Your task to perform on an android device: Show me recent news Image 0: 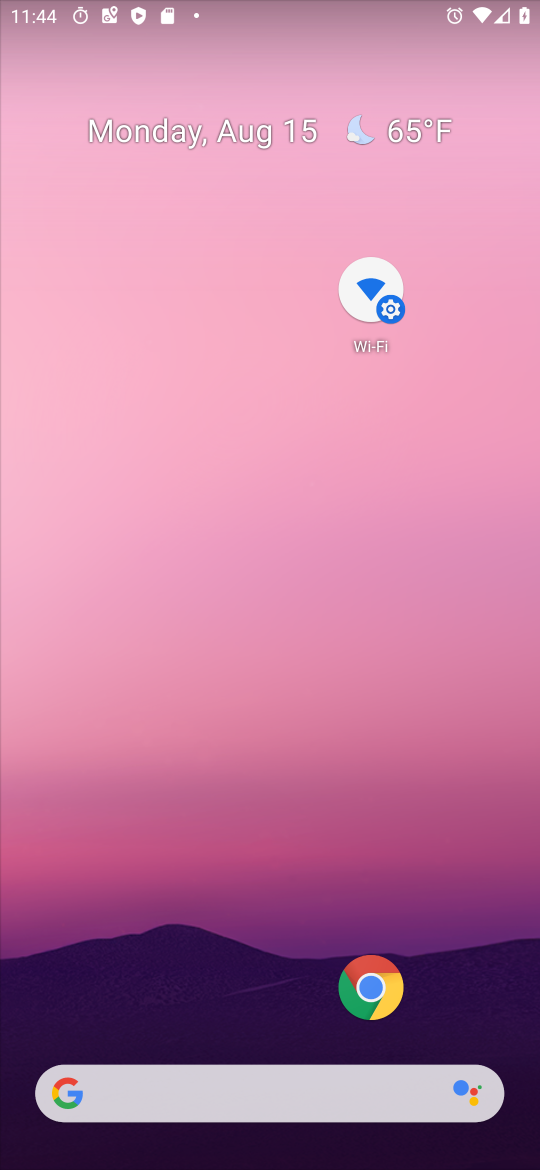
Step 0: click (253, 1082)
Your task to perform on an android device: Show me recent news Image 1: 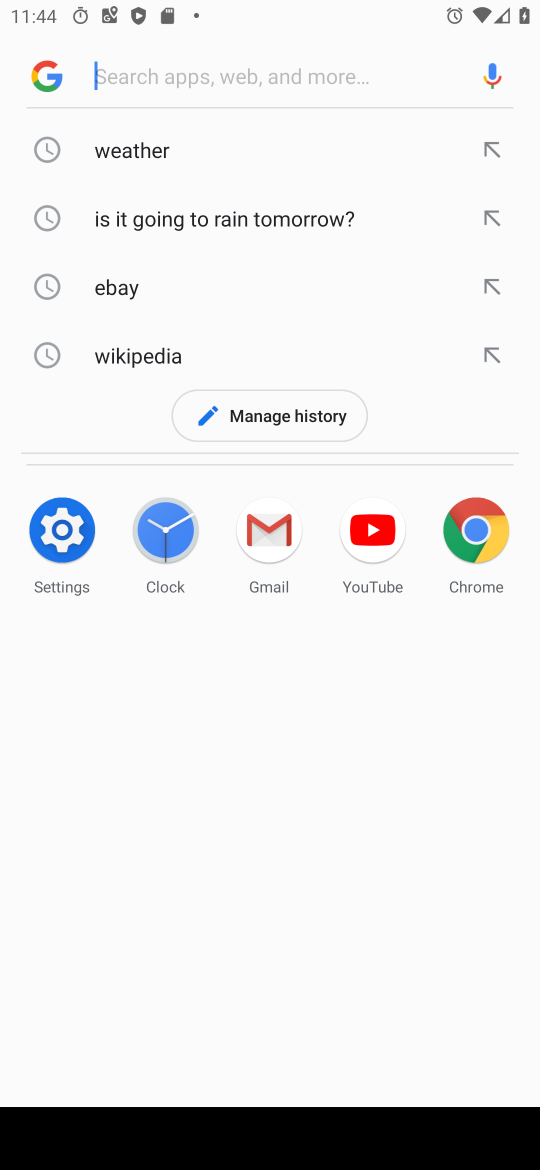
Step 1: type "recent news"
Your task to perform on an android device: Show me recent news Image 2: 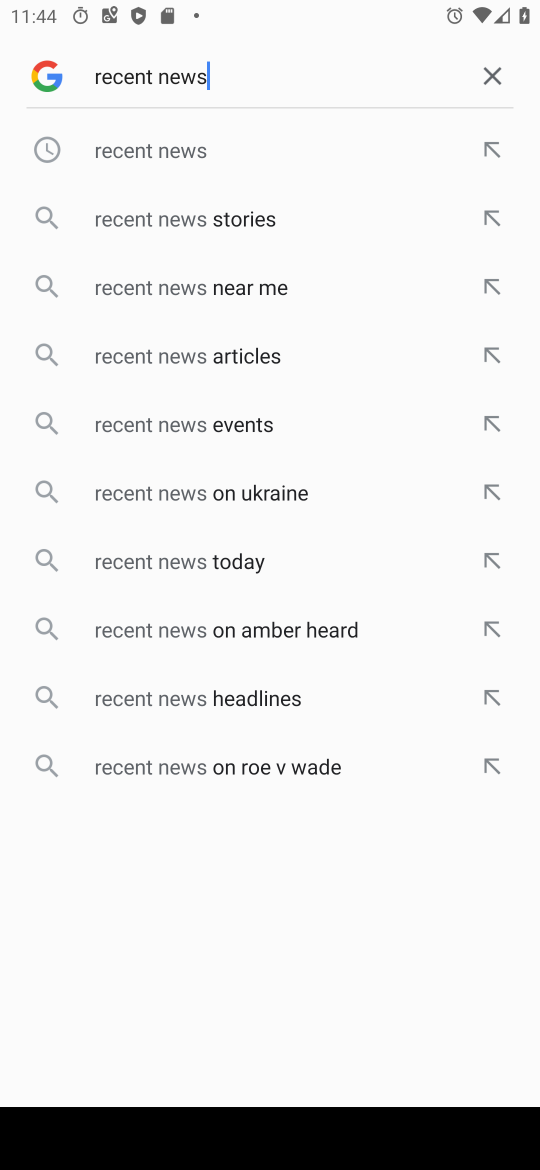
Step 2: click (157, 133)
Your task to perform on an android device: Show me recent news Image 3: 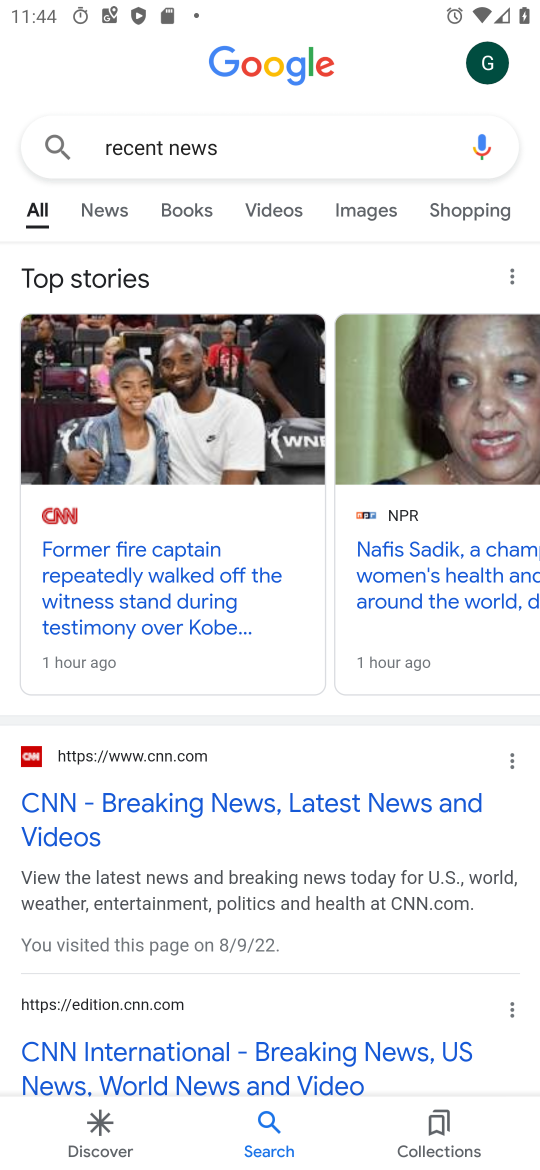
Step 3: task complete